Your task to perform on an android device: Go to network settings Image 0: 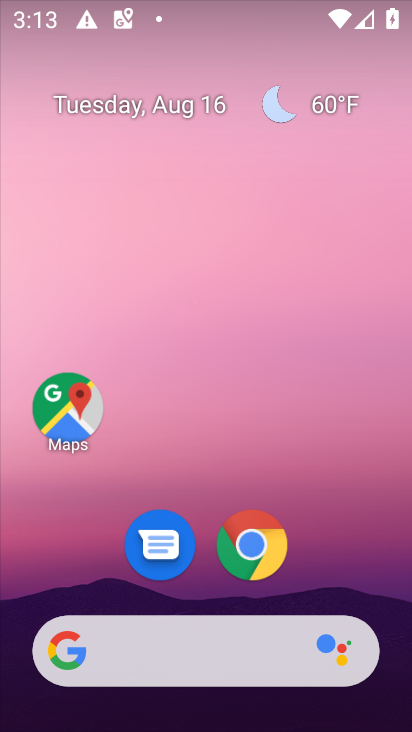
Step 0: drag from (176, 567) to (221, 198)
Your task to perform on an android device: Go to network settings Image 1: 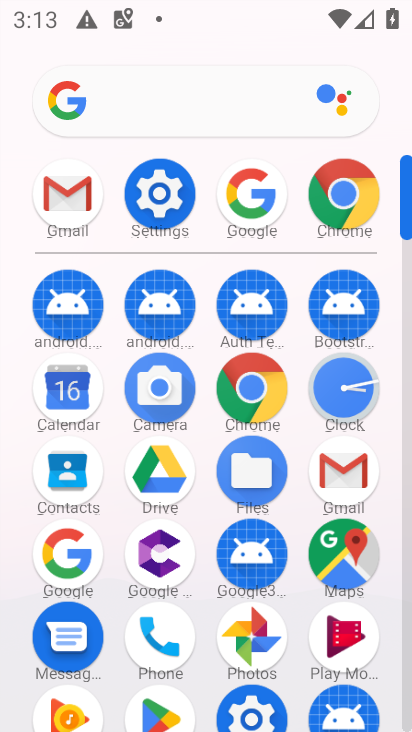
Step 1: click (159, 195)
Your task to perform on an android device: Go to network settings Image 2: 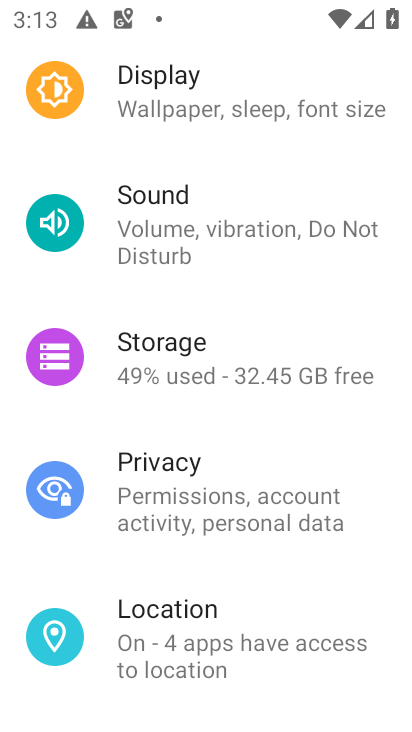
Step 2: drag from (166, 88) to (233, 604)
Your task to perform on an android device: Go to network settings Image 3: 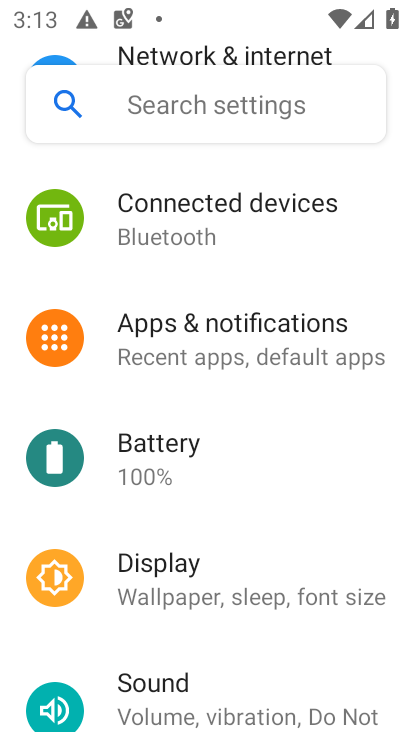
Step 3: drag from (247, 489) to (247, 567)
Your task to perform on an android device: Go to network settings Image 4: 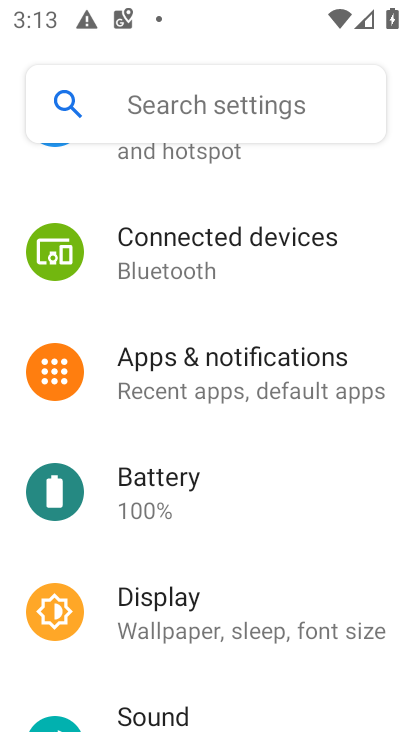
Step 4: drag from (213, 174) to (266, 607)
Your task to perform on an android device: Go to network settings Image 5: 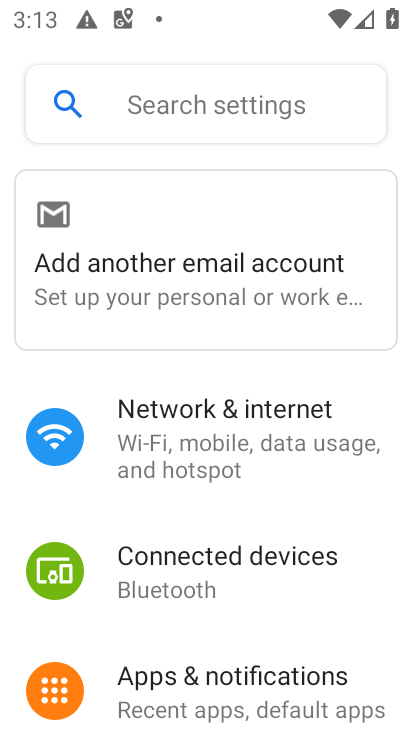
Step 5: click (203, 443)
Your task to perform on an android device: Go to network settings Image 6: 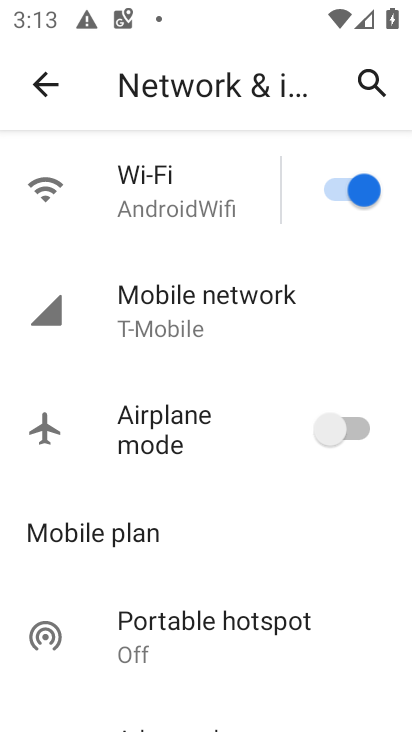
Step 6: click (158, 313)
Your task to perform on an android device: Go to network settings Image 7: 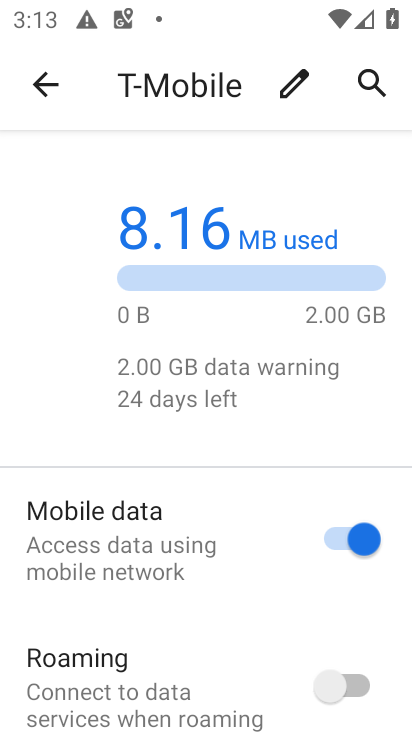
Step 7: task complete